Your task to perform on an android device: Open Chrome and go to the settings page Image 0: 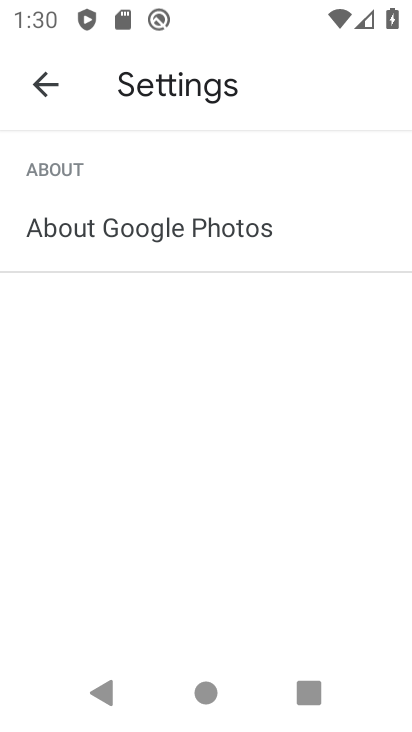
Step 0: press home button
Your task to perform on an android device: Open Chrome and go to the settings page Image 1: 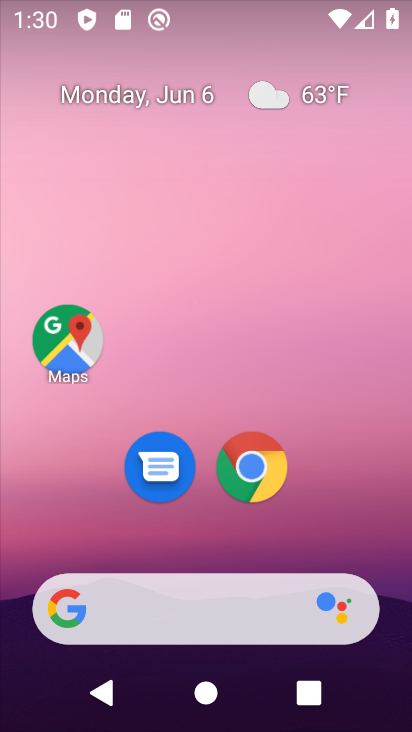
Step 1: drag from (361, 571) to (197, 68)
Your task to perform on an android device: Open Chrome and go to the settings page Image 2: 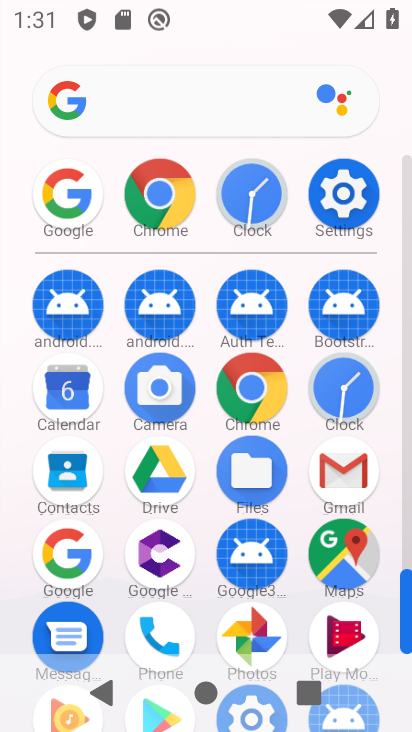
Step 2: click (256, 394)
Your task to perform on an android device: Open Chrome and go to the settings page Image 3: 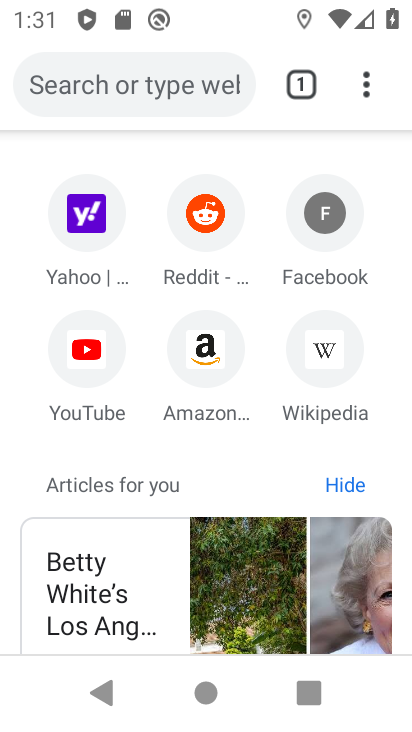
Step 3: click (371, 83)
Your task to perform on an android device: Open Chrome and go to the settings page Image 4: 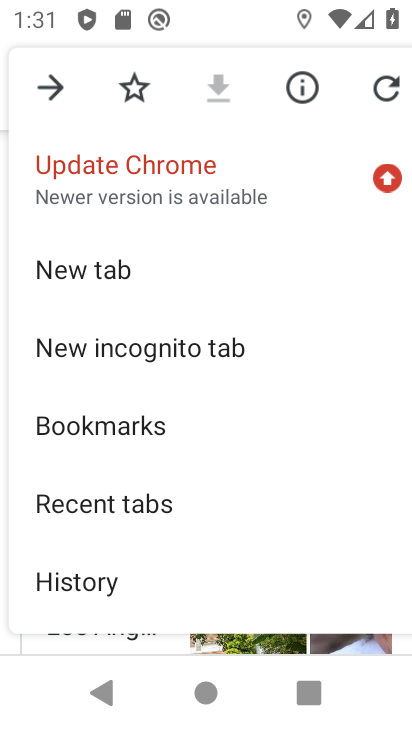
Step 4: drag from (115, 562) to (176, 2)
Your task to perform on an android device: Open Chrome and go to the settings page Image 5: 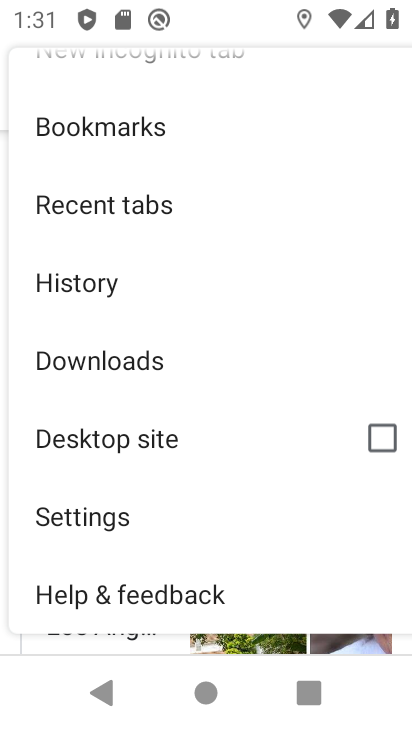
Step 5: click (106, 506)
Your task to perform on an android device: Open Chrome and go to the settings page Image 6: 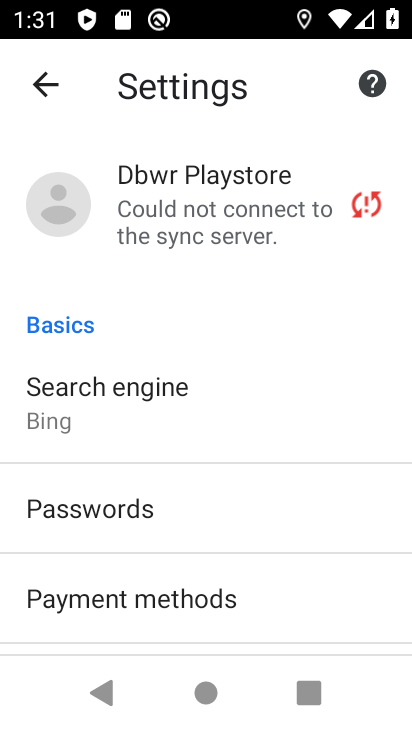
Step 6: task complete